Your task to perform on an android device: show emergency info Image 0: 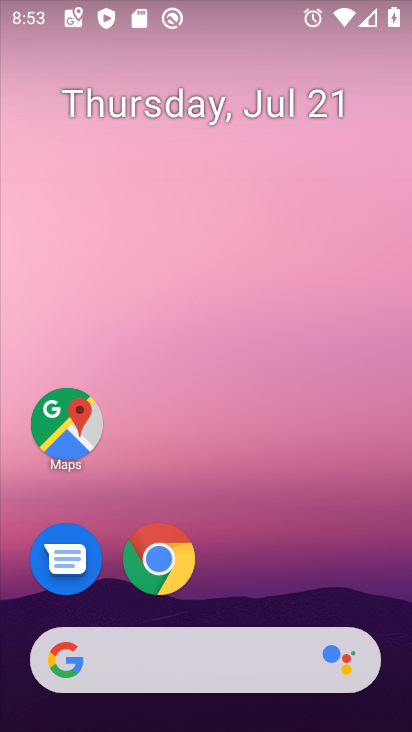
Step 0: drag from (357, 581) to (346, 111)
Your task to perform on an android device: show emergency info Image 1: 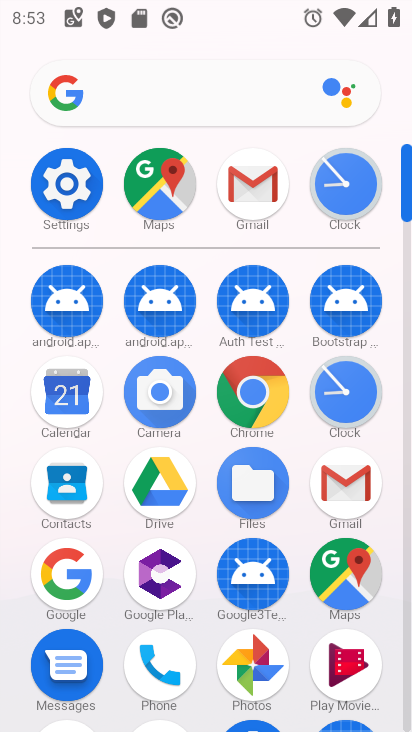
Step 1: click (70, 191)
Your task to perform on an android device: show emergency info Image 2: 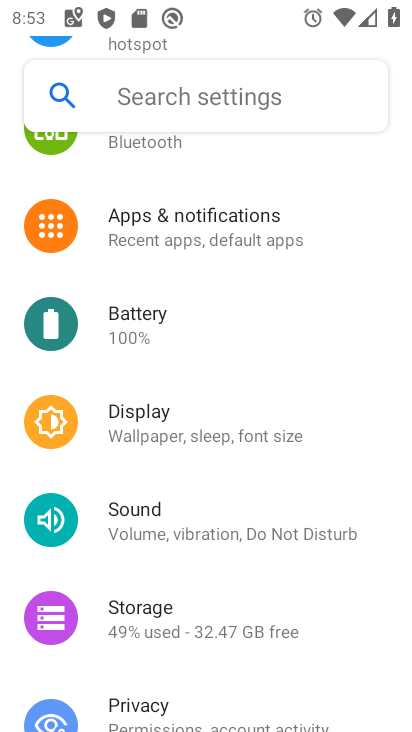
Step 2: drag from (349, 319) to (348, 419)
Your task to perform on an android device: show emergency info Image 3: 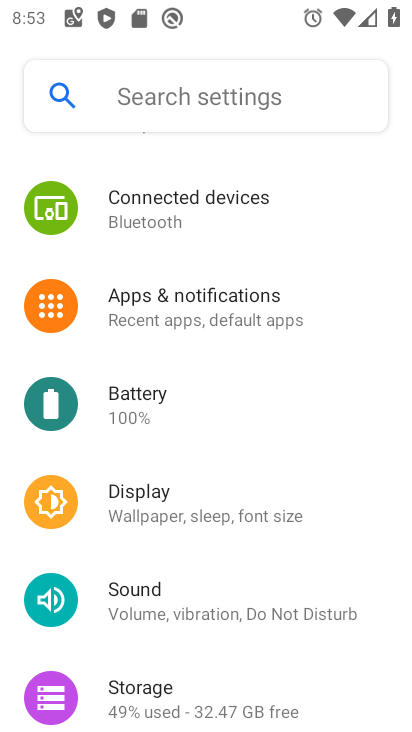
Step 3: drag from (349, 301) to (363, 563)
Your task to perform on an android device: show emergency info Image 4: 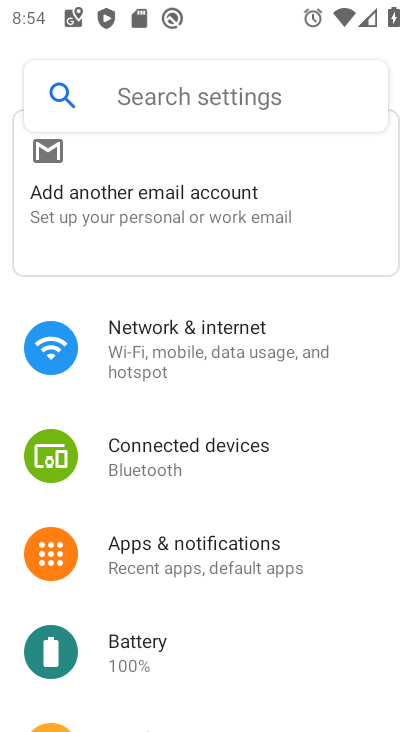
Step 4: drag from (363, 563) to (357, 436)
Your task to perform on an android device: show emergency info Image 5: 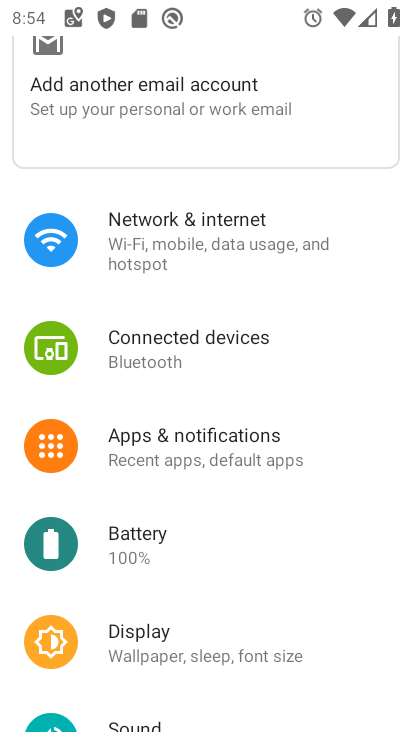
Step 5: drag from (355, 548) to (341, 444)
Your task to perform on an android device: show emergency info Image 6: 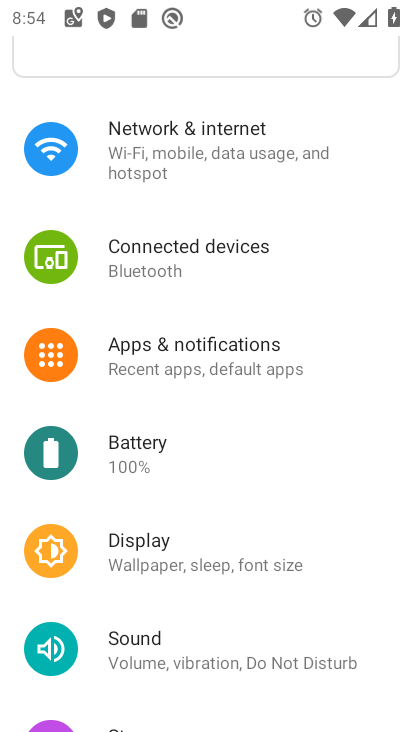
Step 6: drag from (348, 573) to (344, 470)
Your task to perform on an android device: show emergency info Image 7: 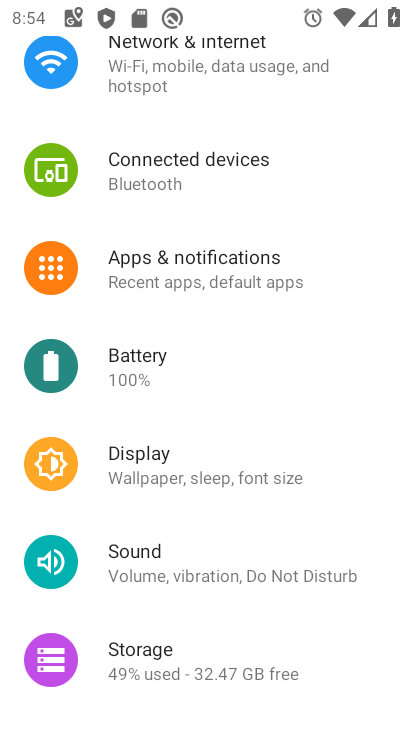
Step 7: drag from (339, 602) to (339, 484)
Your task to perform on an android device: show emergency info Image 8: 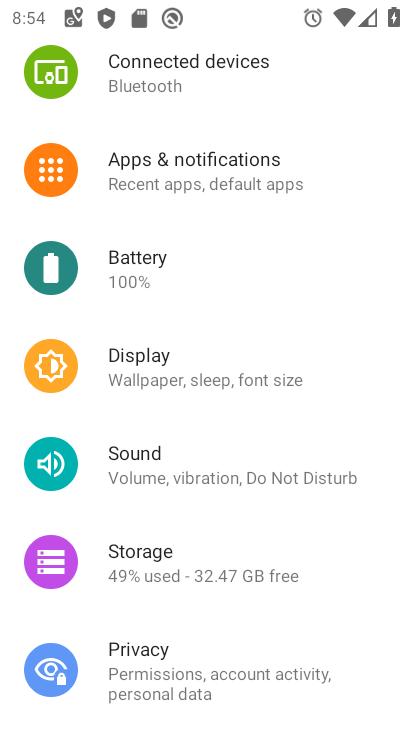
Step 8: drag from (342, 617) to (336, 499)
Your task to perform on an android device: show emergency info Image 9: 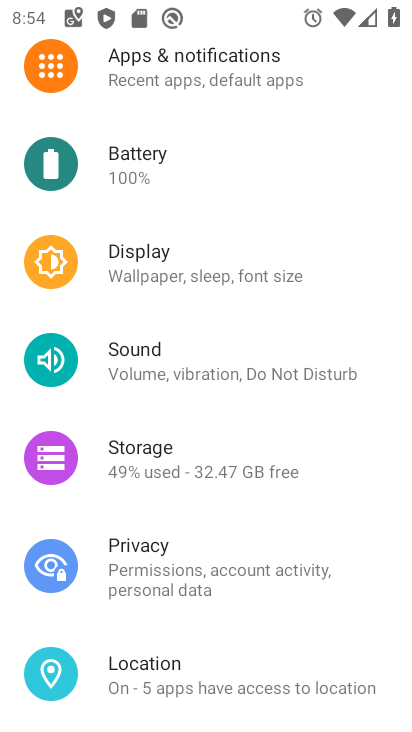
Step 9: drag from (321, 612) to (318, 520)
Your task to perform on an android device: show emergency info Image 10: 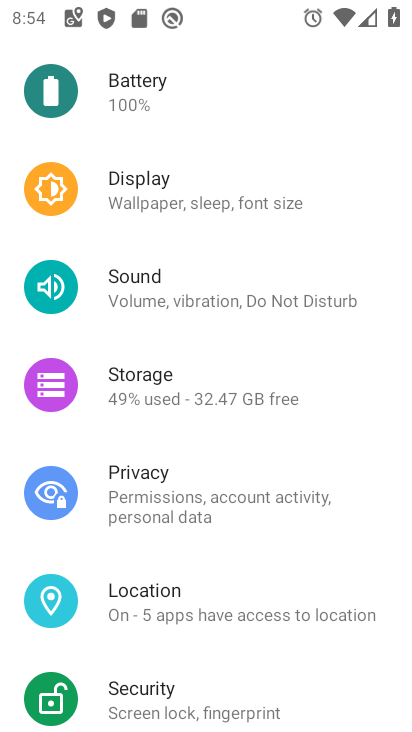
Step 10: drag from (337, 646) to (339, 528)
Your task to perform on an android device: show emergency info Image 11: 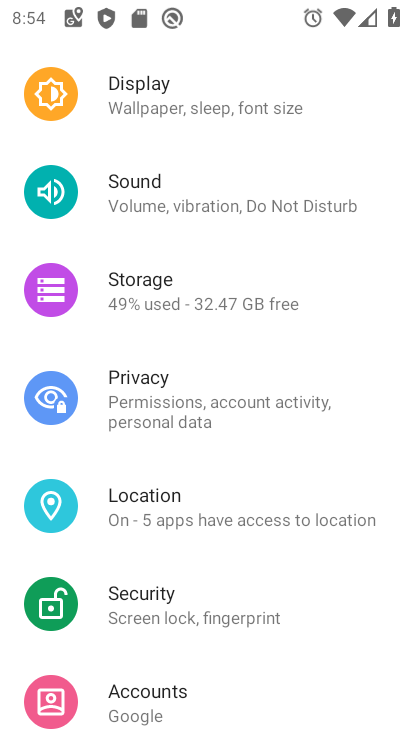
Step 11: drag from (348, 645) to (367, 522)
Your task to perform on an android device: show emergency info Image 12: 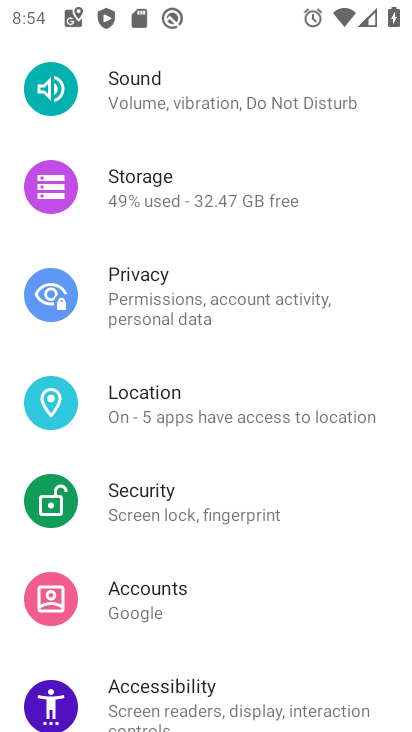
Step 12: drag from (329, 645) to (338, 540)
Your task to perform on an android device: show emergency info Image 13: 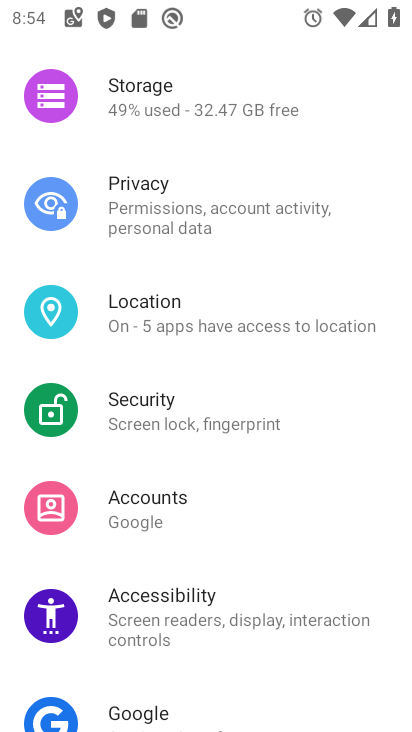
Step 13: drag from (323, 672) to (328, 550)
Your task to perform on an android device: show emergency info Image 14: 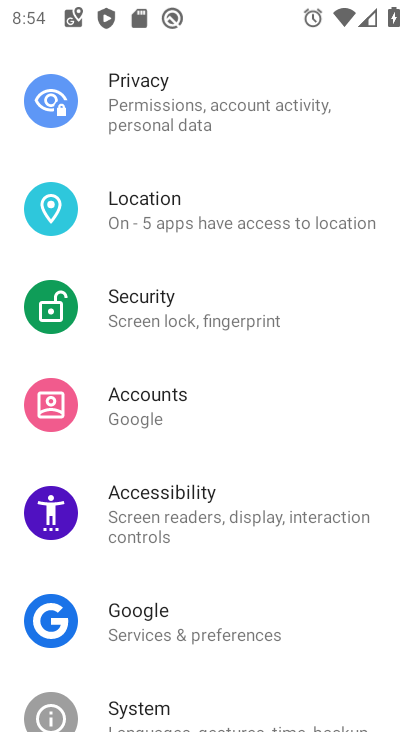
Step 14: drag from (362, 616) to (350, 497)
Your task to perform on an android device: show emergency info Image 15: 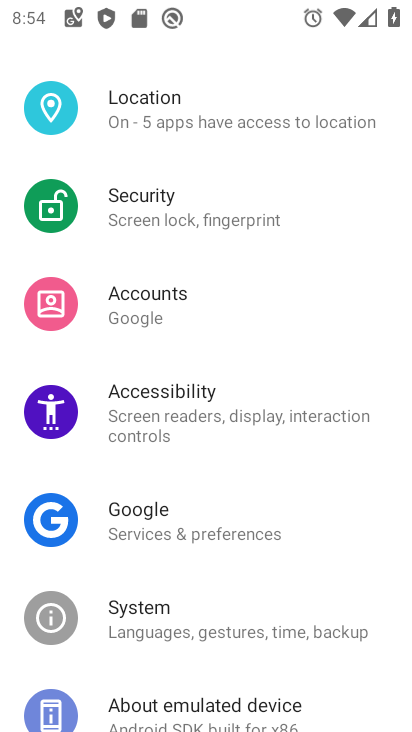
Step 15: click (273, 697)
Your task to perform on an android device: show emergency info Image 16: 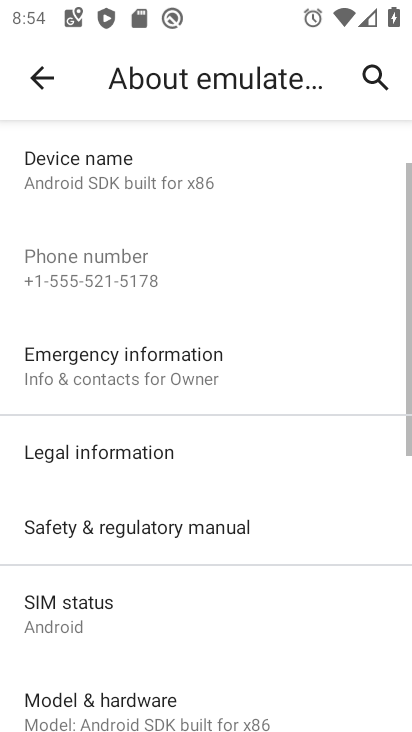
Step 16: click (264, 373)
Your task to perform on an android device: show emergency info Image 17: 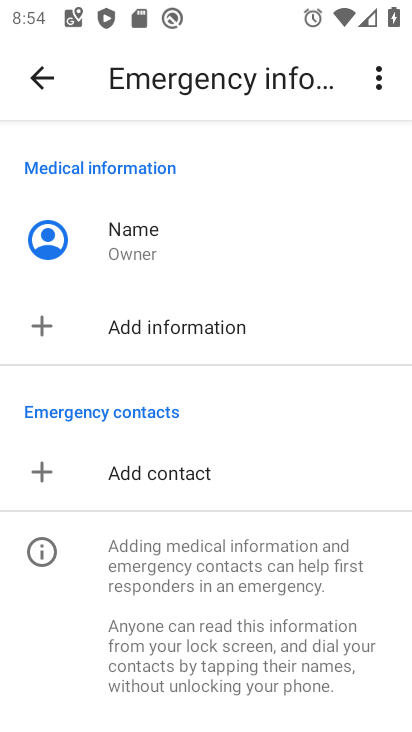
Step 17: task complete